Your task to perform on an android device: delete location history Image 0: 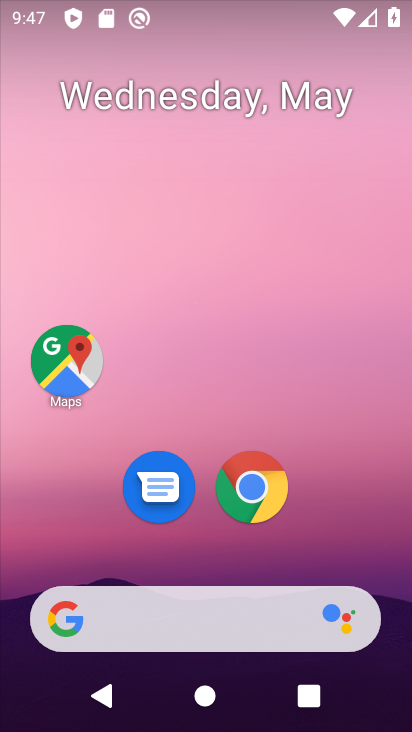
Step 0: press home button
Your task to perform on an android device: delete location history Image 1: 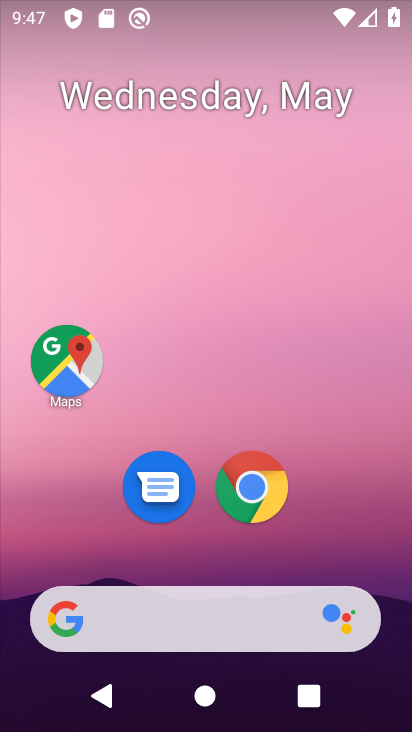
Step 1: drag from (294, 670) to (189, 132)
Your task to perform on an android device: delete location history Image 2: 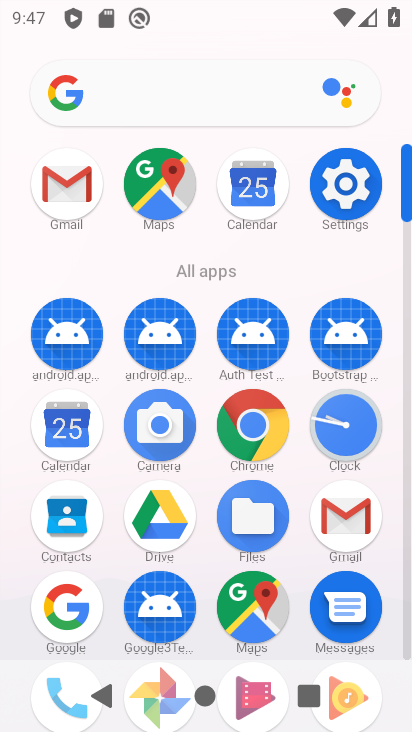
Step 2: click (353, 216)
Your task to perform on an android device: delete location history Image 3: 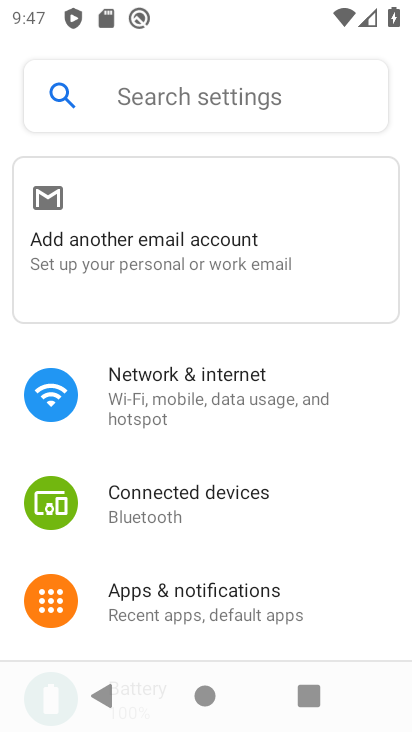
Step 3: click (163, 115)
Your task to perform on an android device: delete location history Image 4: 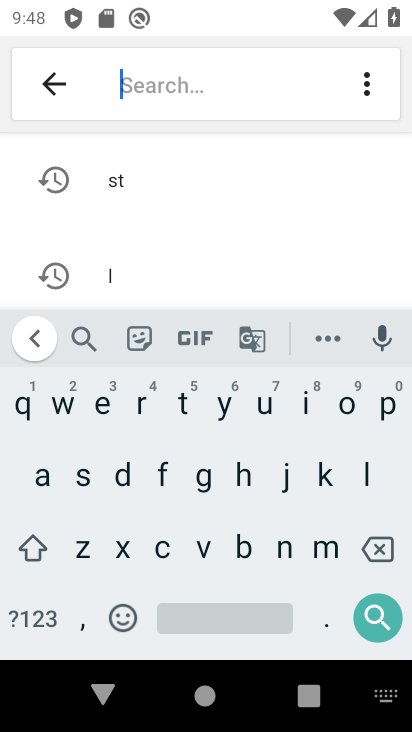
Step 4: click (367, 479)
Your task to perform on an android device: delete location history Image 5: 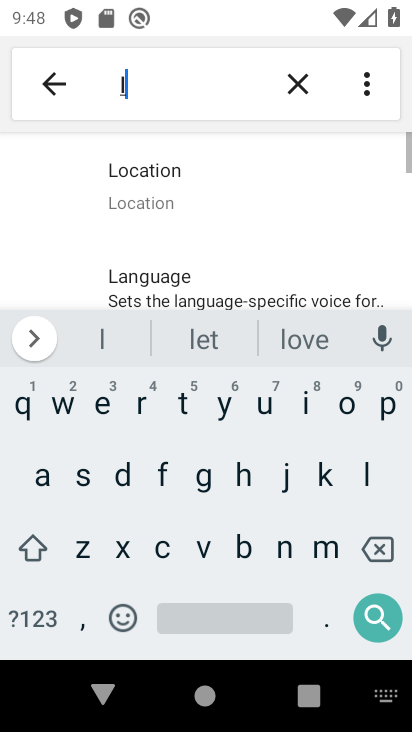
Step 5: click (346, 406)
Your task to perform on an android device: delete location history Image 6: 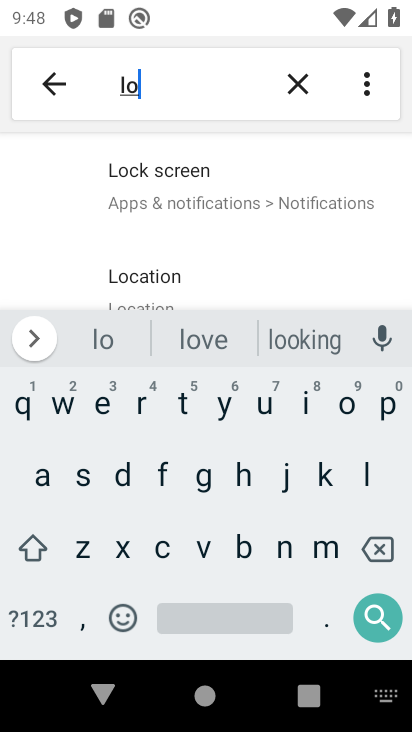
Step 6: click (210, 285)
Your task to perform on an android device: delete location history Image 7: 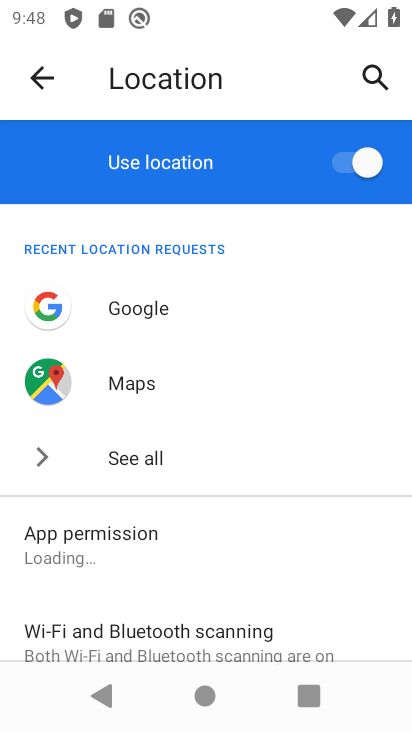
Step 7: drag from (39, 610) to (81, 444)
Your task to perform on an android device: delete location history Image 8: 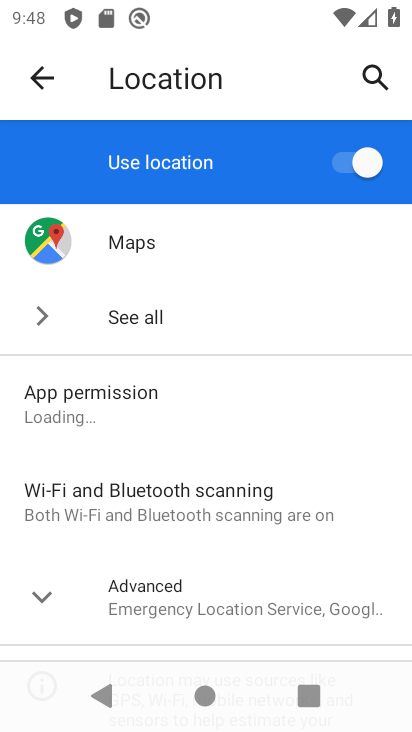
Step 8: click (38, 595)
Your task to perform on an android device: delete location history Image 9: 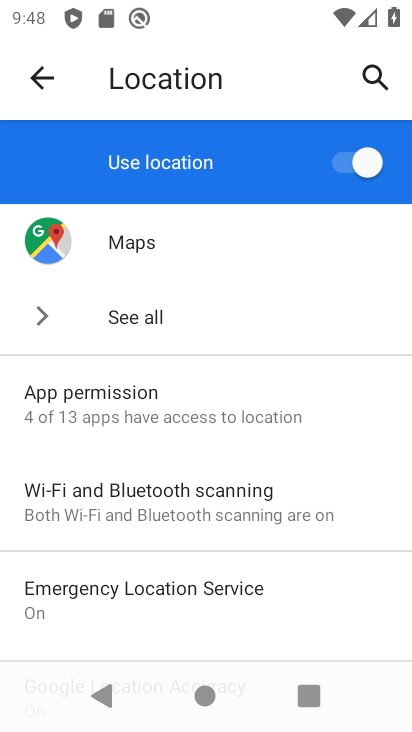
Step 9: drag from (119, 601) to (147, 429)
Your task to perform on an android device: delete location history Image 10: 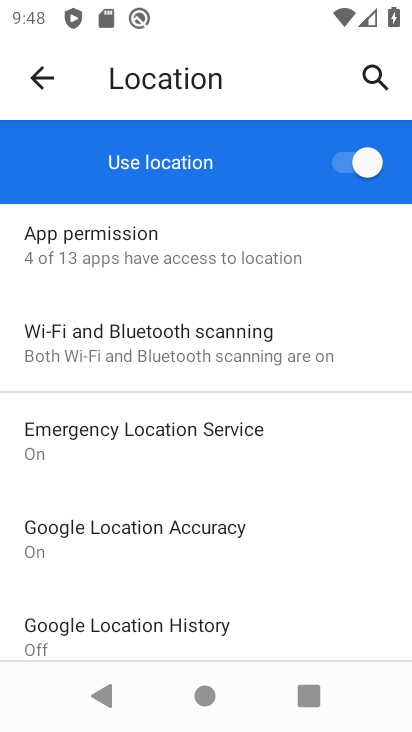
Step 10: click (147, 593)
Your task to perform on an android device: delete location history Image 11: 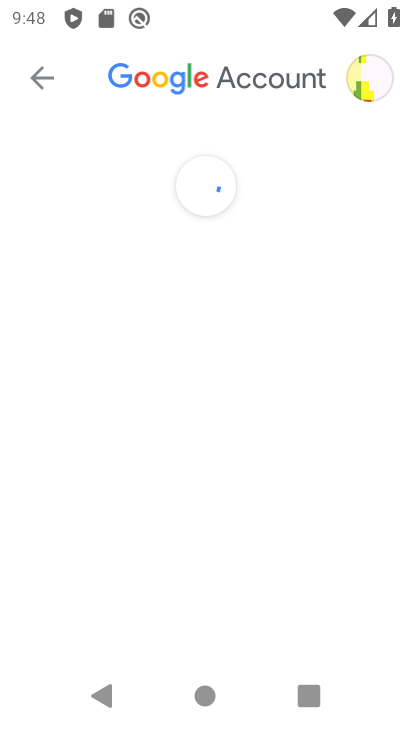
Step 11: drag from (339, 375) to (334, 133)
Your task to perform on an android device: delete location history Image 12: 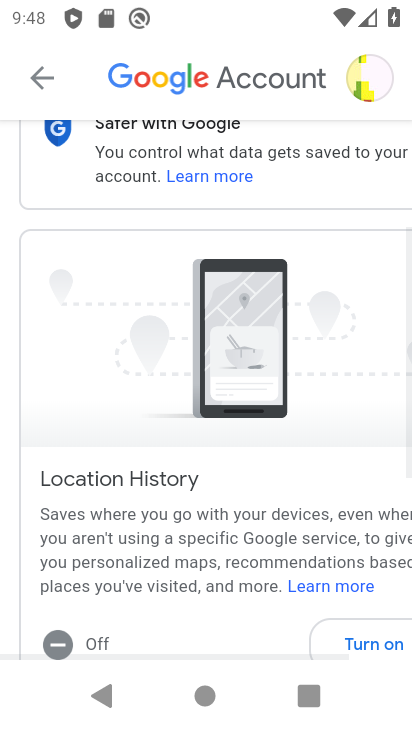
Step 12: drag from (238, 552) to (267, 285)
Your task to perform on an android device: delete location history Image 13: 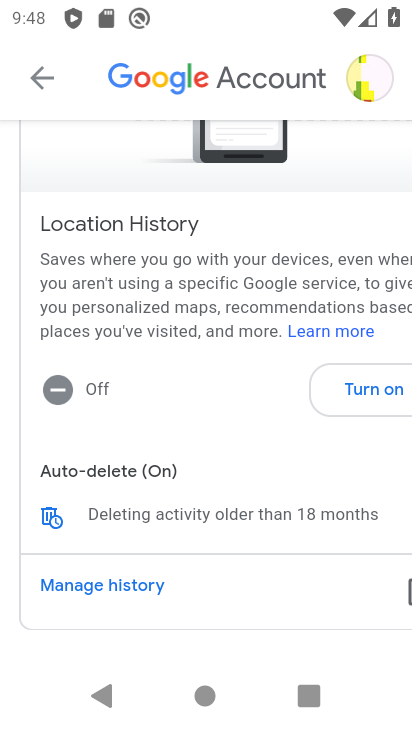
Step 13: click (161, 589)
Your task to perform on an android device: delete location history Image 14: 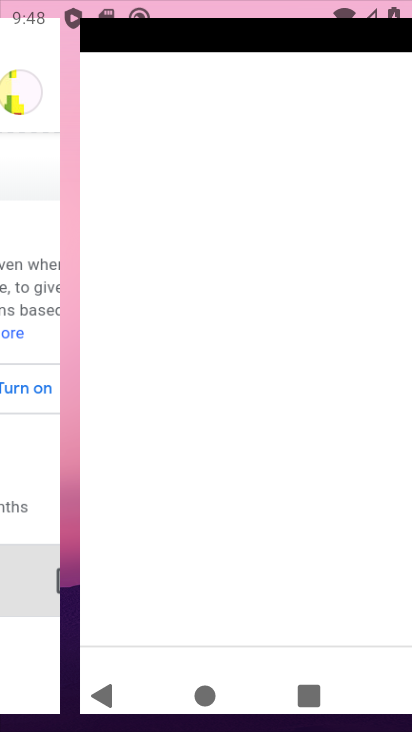
Step 14: task complete